Your task to perform on an android device: uninstall "Venmo" Image 0: 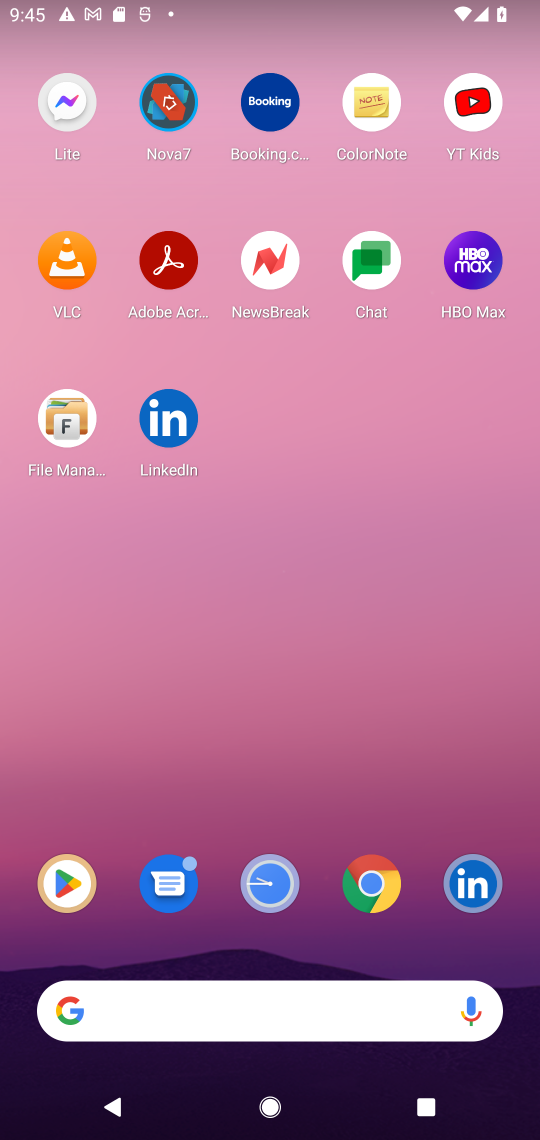
Step 0: click (65, 908)
Your task to perform on an android device: uninstall "Venmo" Image 1: 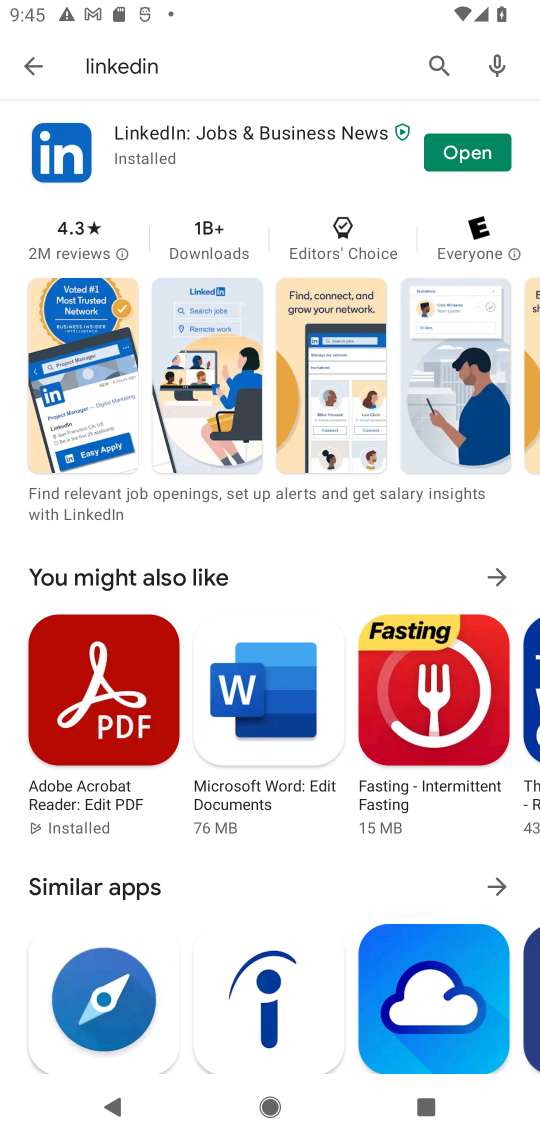
Step 1: click (257, 66)
Your task to perform on an android device: uninstall "Venmo" Image 2: 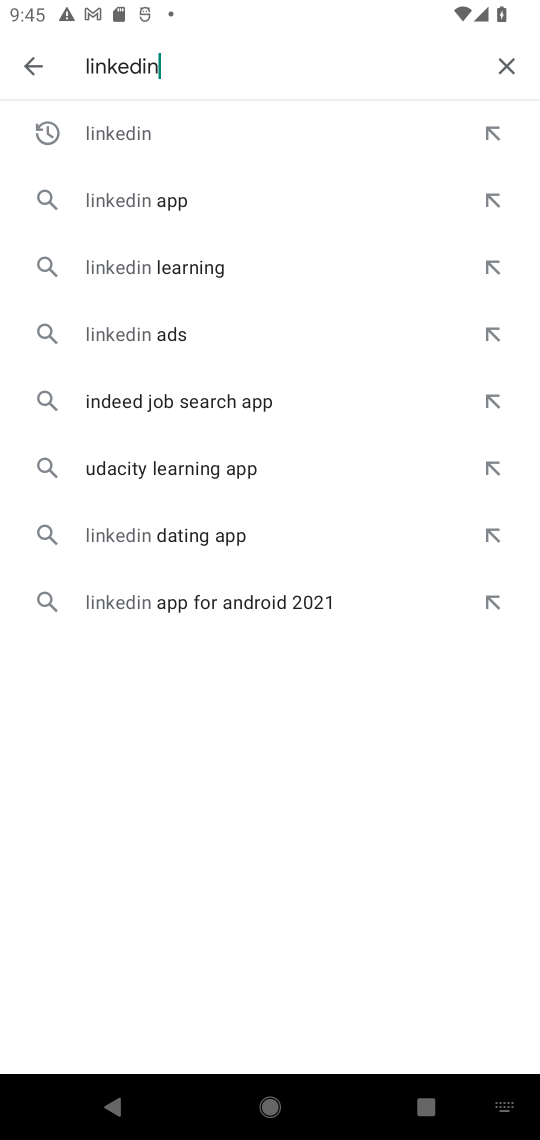
Step 2: click (503, 62)
Your task to perform on an android device: uninstall "Venmo" Image 3: 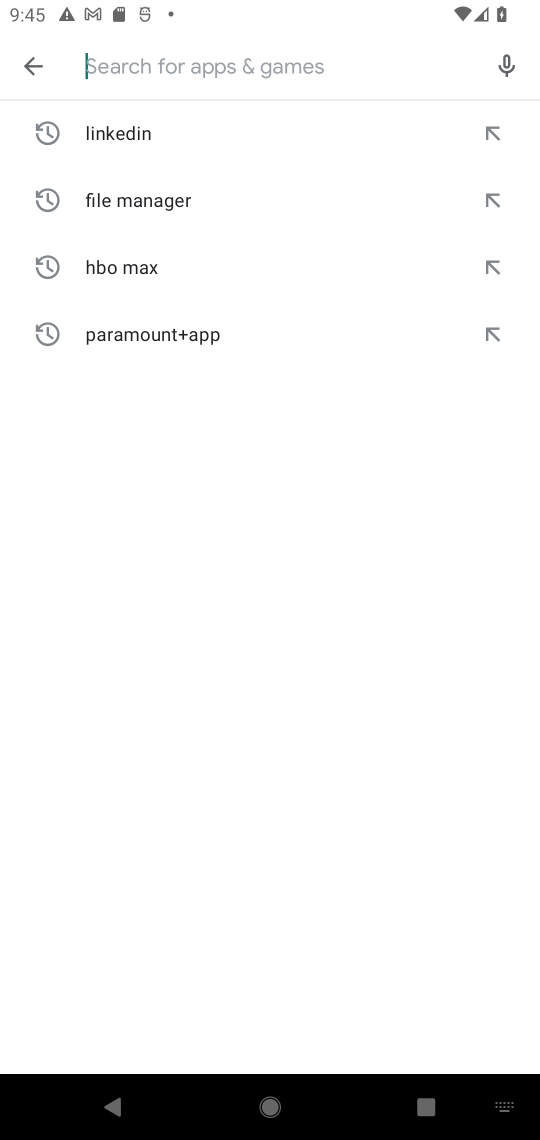
Step 3: type "Venmo"
Your task to perform on an android device: uninstall "Venmo" Image 4: 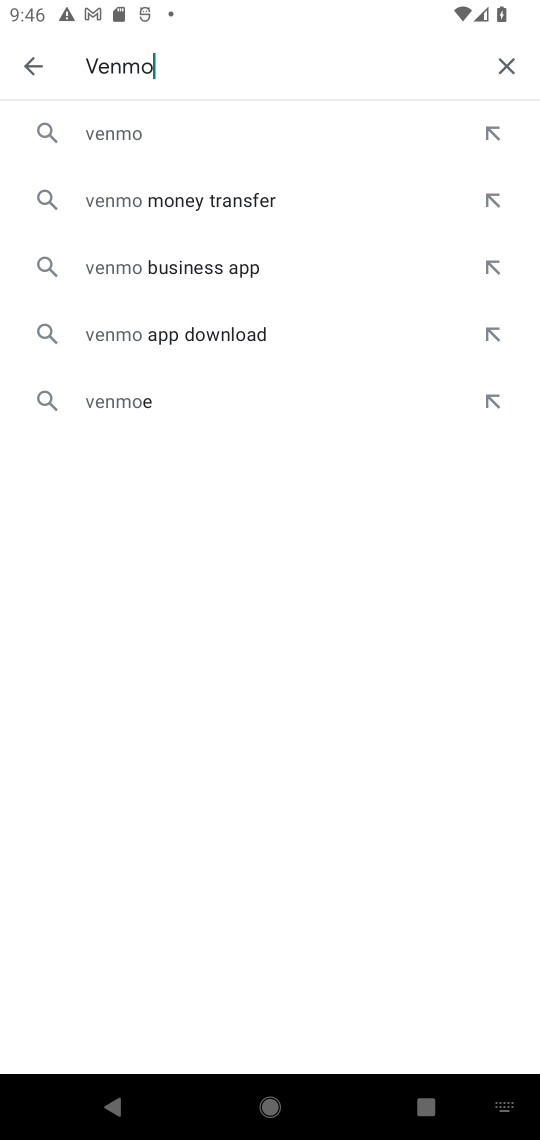
Step 4: click (157, 133)
Your task to perform on an android device: uninstall "Venmo" Image 5: 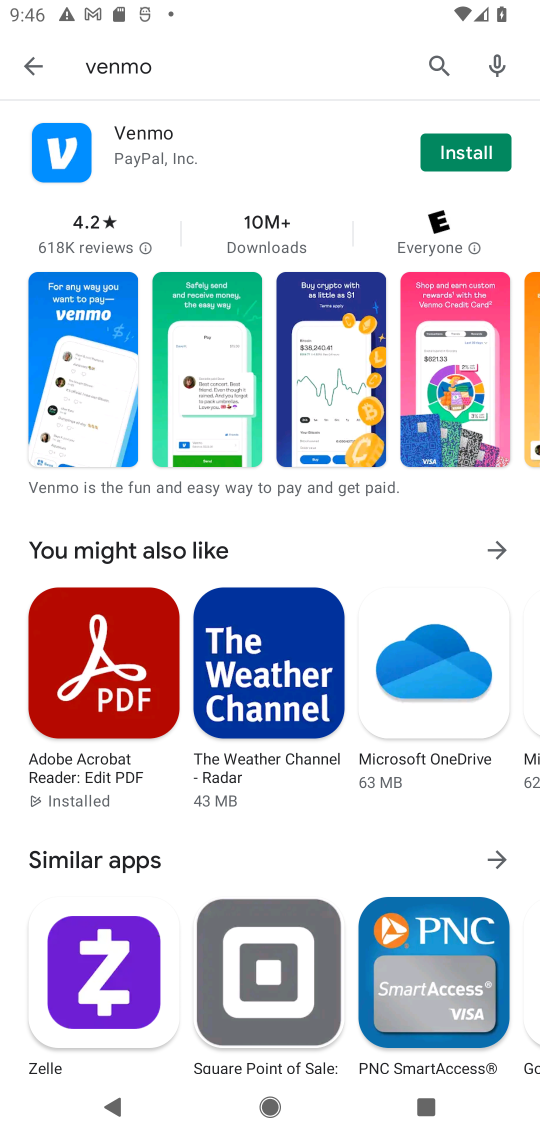
Step 5: task complete